Your task to perform on an android device: Search for Mexican restaurants on Maps Image 0: 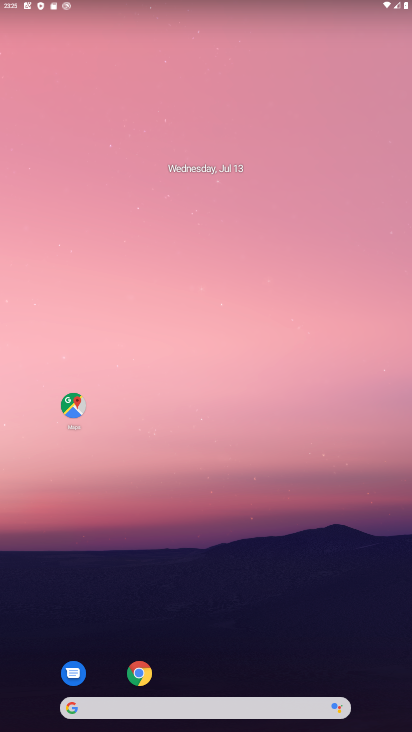
Step 0: click (61, 410)
Your task to perform on an android device: Search for Mexican restaurants on Maps Image 1: 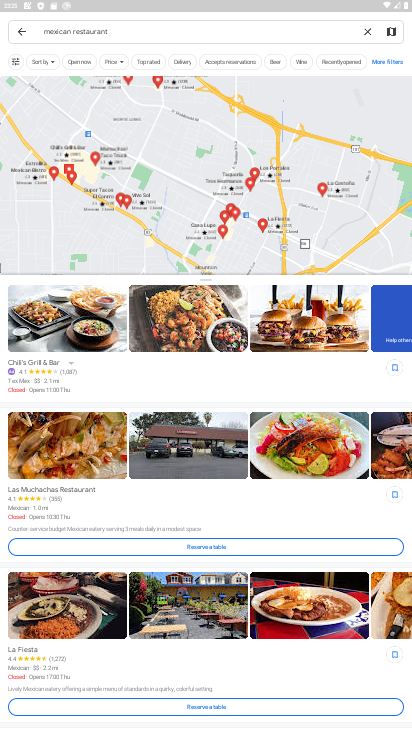
Step 1: task complete